Your task to perform on an android device: open a new tab in the chrome app Image 0: 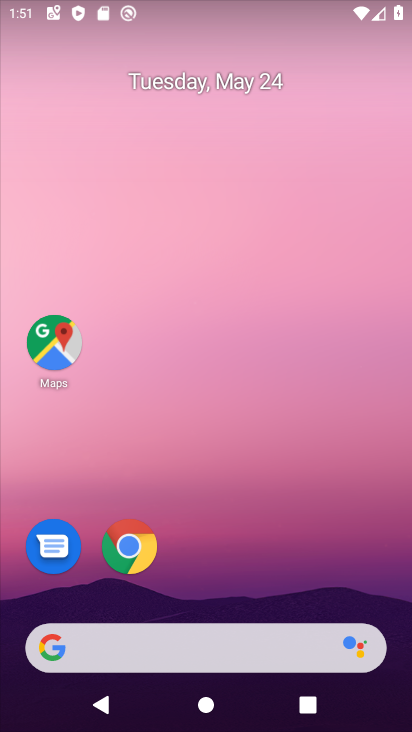
Step 0: click (124, 553)
Your task to perform on an android device: open a new tab in the chrome app Image 1: 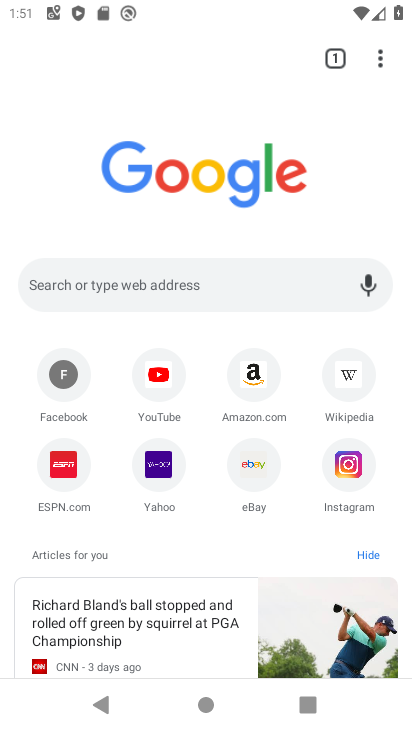
Step 1: task complete